Your task to perform on an android device: turn on bluetooth scan Image 0: 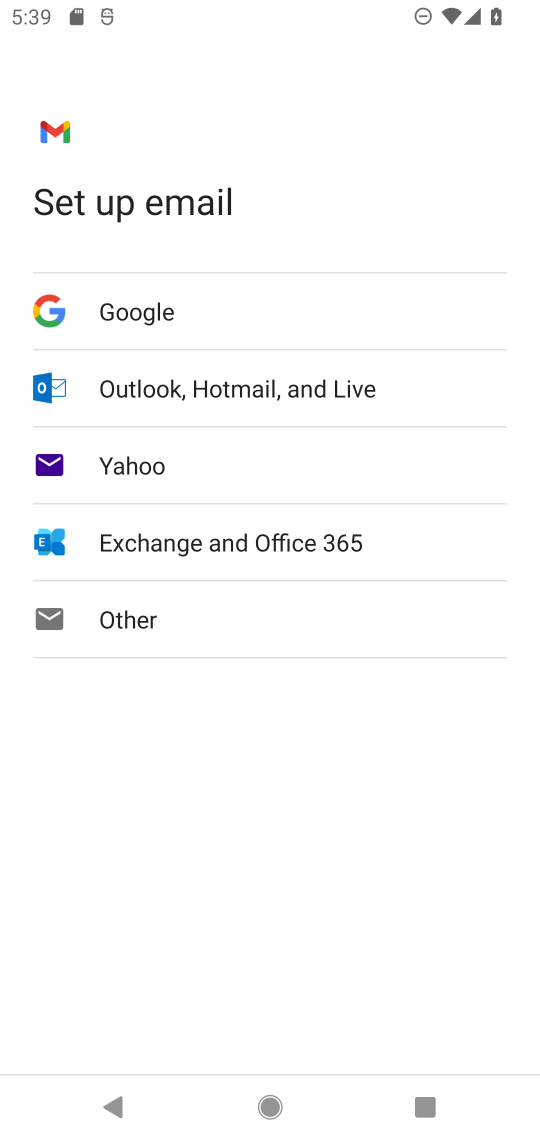
Step 0: press home button
Your task to perform on an android device: turn on bluetooth scan Image 1: 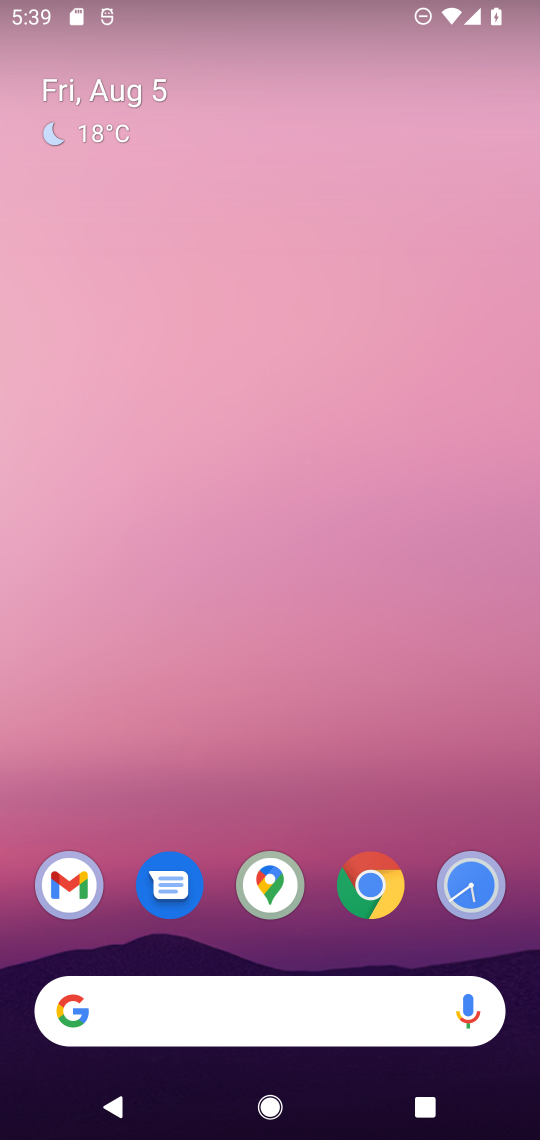
Step 1: drag from (333, 950) to (337, 100)
Your task to perform on an android device: turn on bluetooth scan Image 2: 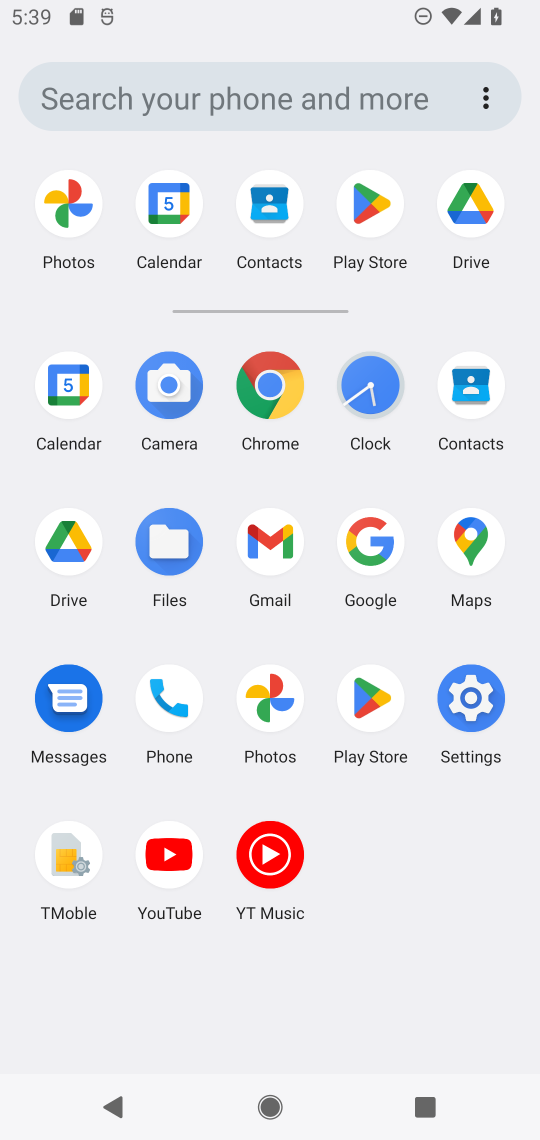
Step 2: click (461, 699)
Your task to perform on an android device: turn on bluetooth scan Image 3: 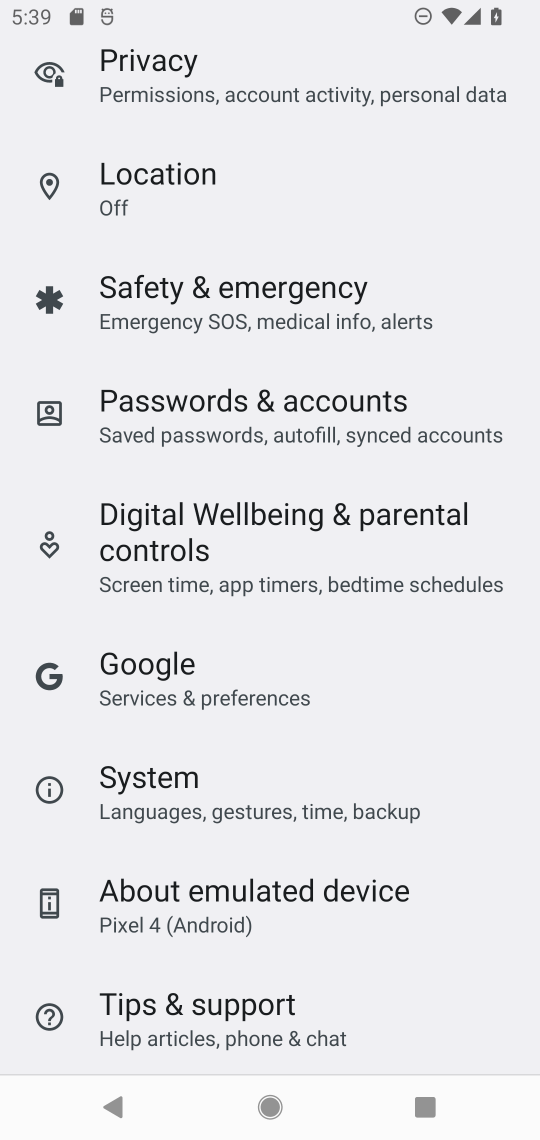
Step 3: drag from (233, 289) to (281, 796)
Your task to perform on an android device: turn on bluetooth scan Image 4: 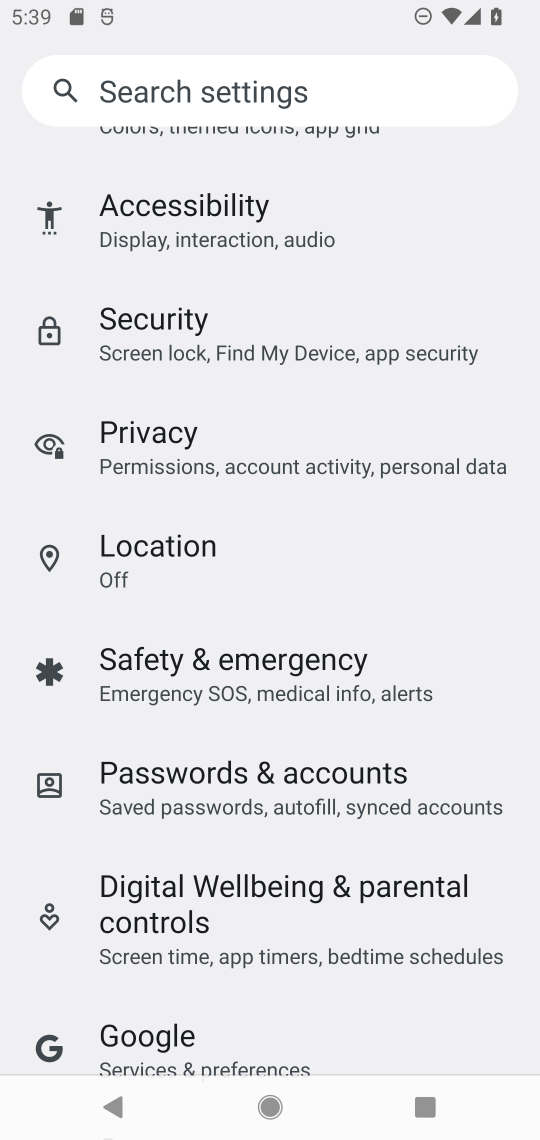
Step 4: drag from (235, 273) to (307, 758)
Your task to perform on an android device: turn on bluetooth scan Image 5: 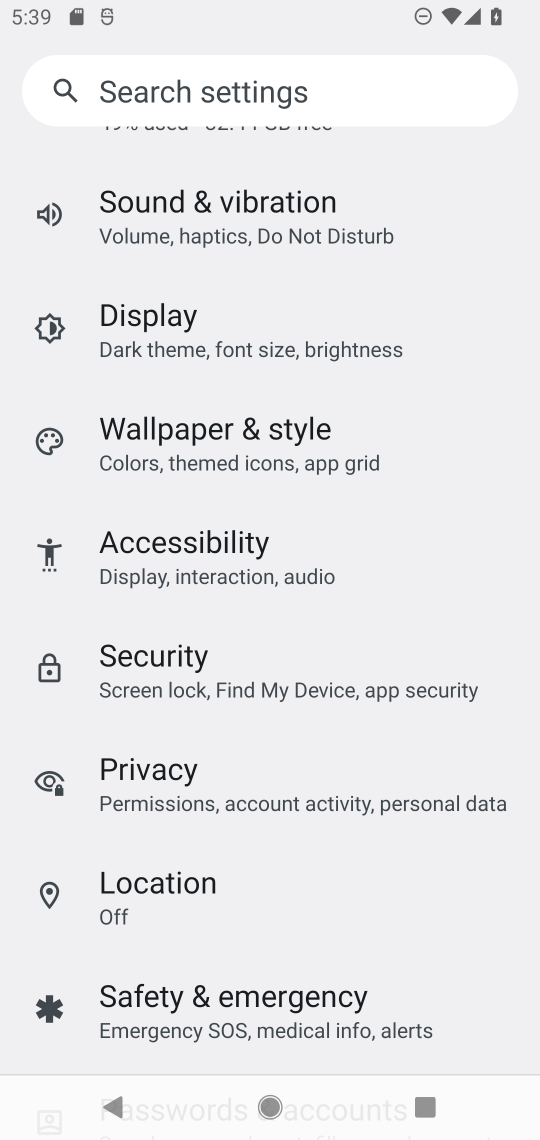
Step 5: drag from (202, 221) to (244, 806)
Your task to perform on an android device: turn on bluetooth scan Image 6: 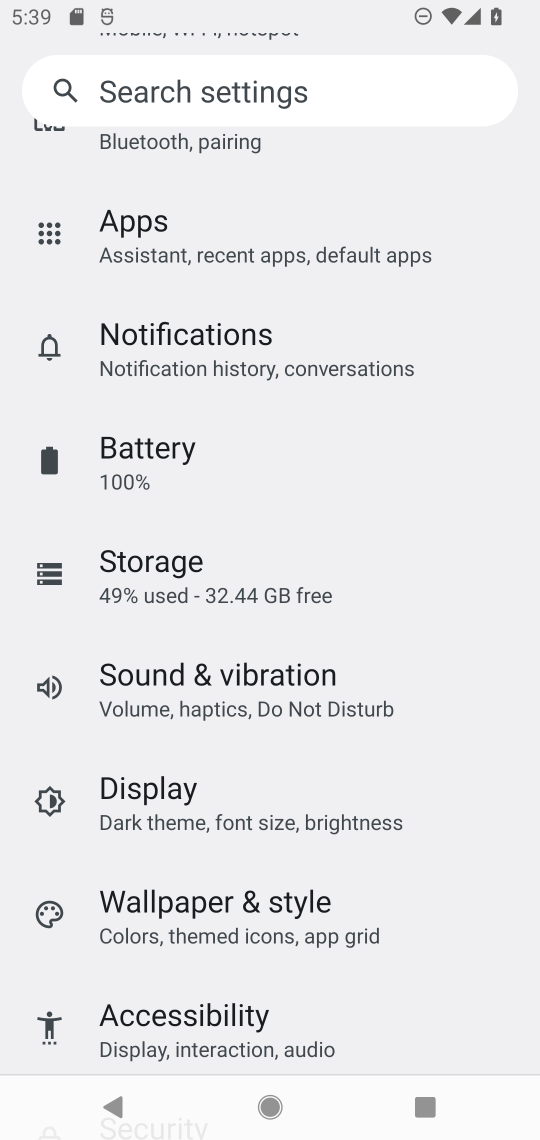
Step 6: drag from (185, 234) to (200, 927)
Your task to perform on an android device: turn on bluetooth scan Image 7: 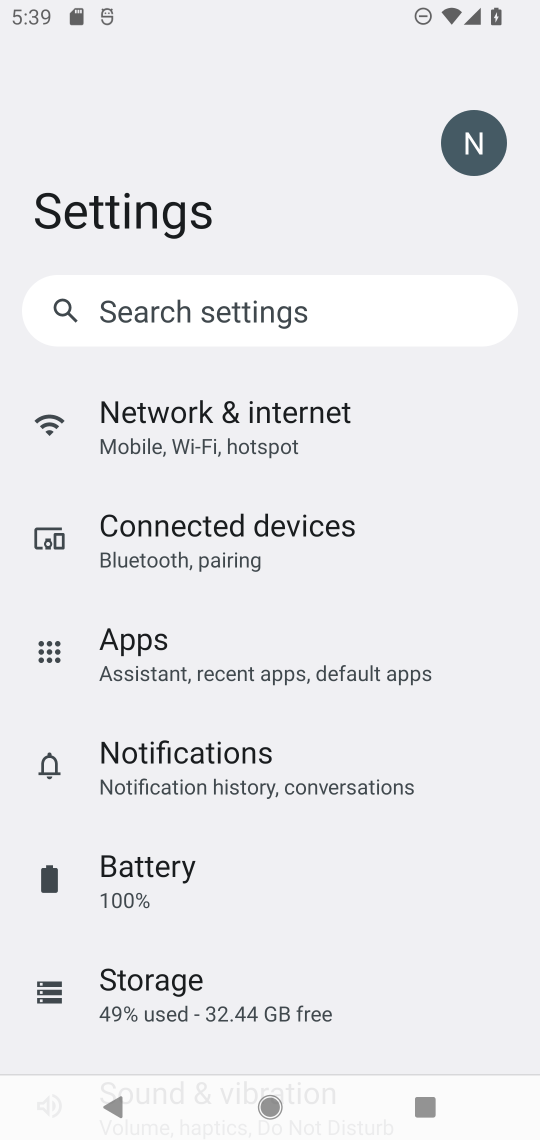
Step 7: drag from (169, 991) to (176, 457)
Your task to perform on an android device: turn on bluetooth scan Image 8: 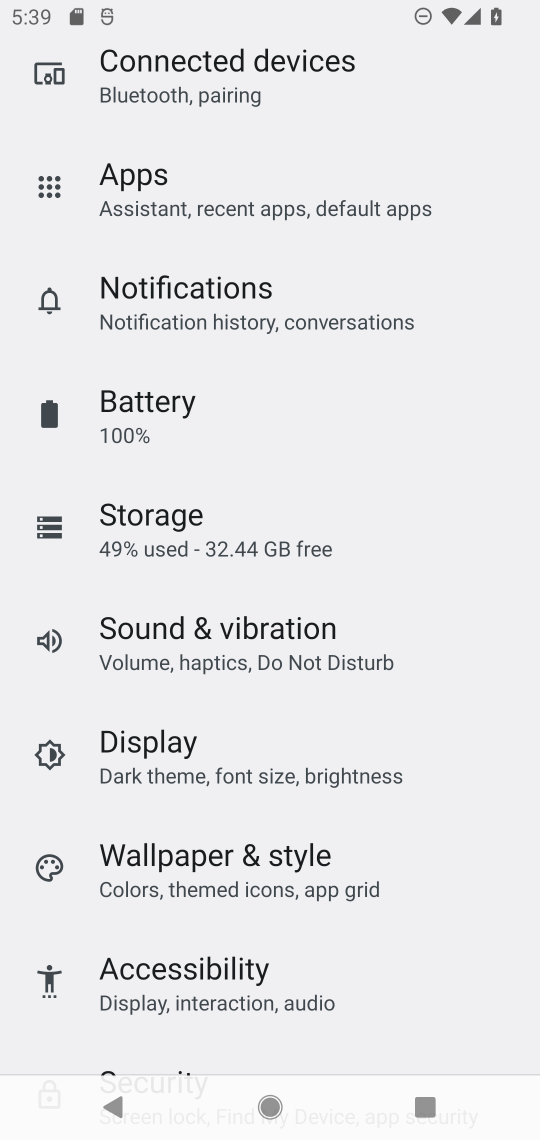
Step 8: drag from (196, 1033) to (188, 523)
Your task to perform on an android device: turn on bluetooth scan Image 9: 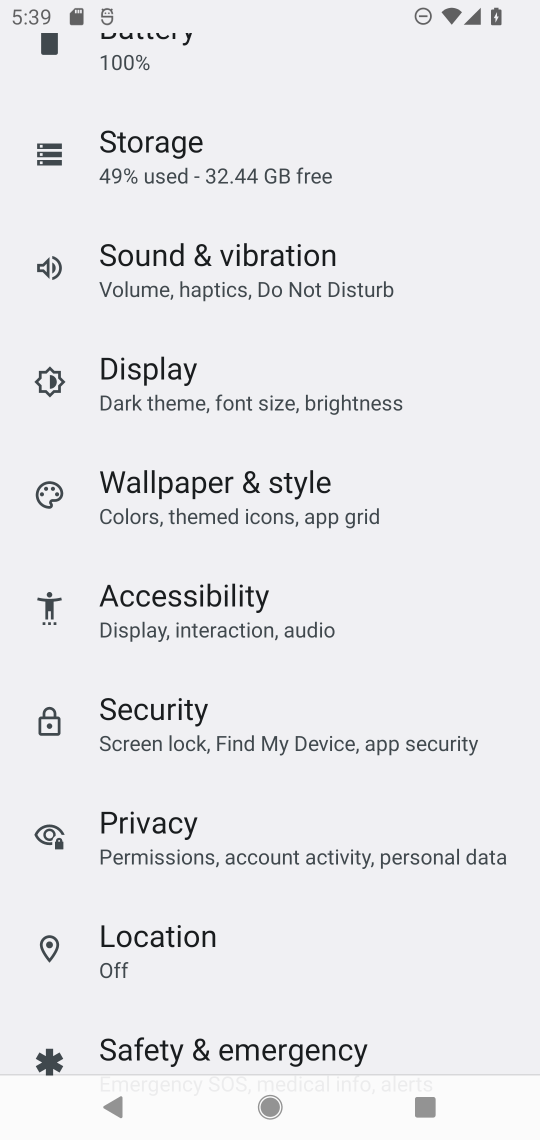
Step 9: click (152, 947)
Your task to perform on an android device: turn on bluetooth scan Image 10: 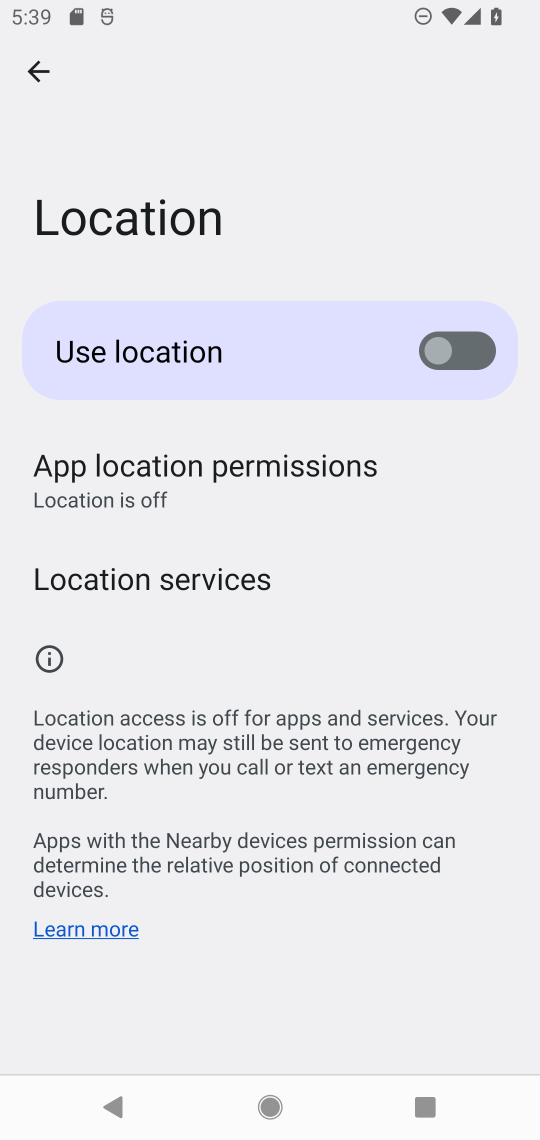
Step 10: click (169, 575)
Your task to perform on an android device: turn on bluetooth scan Image 11: 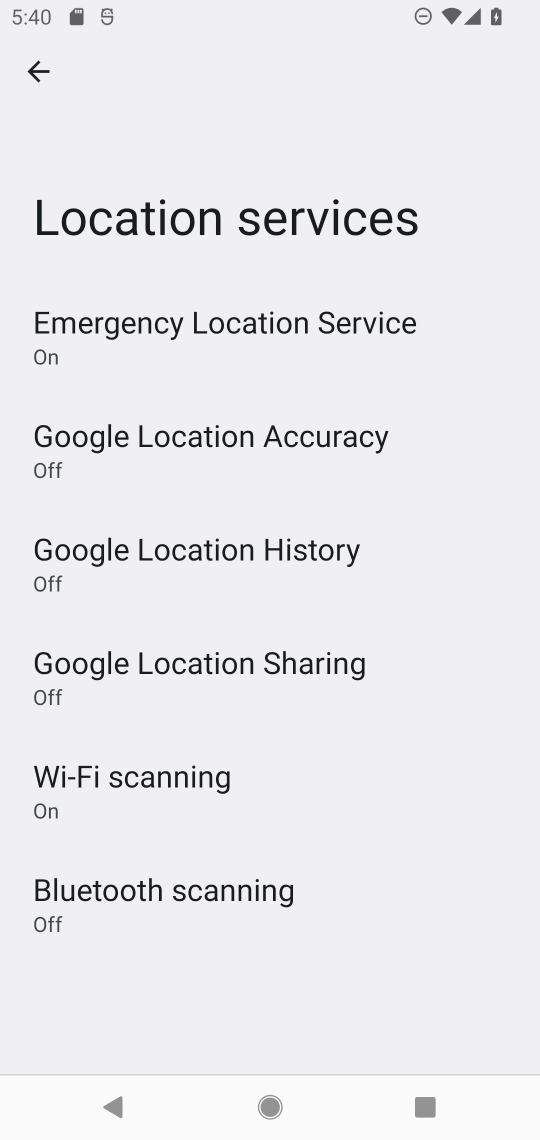
Step 11: click (193, 900)
Your task to perform on an android device: turn on bluetooth scan Image 12: 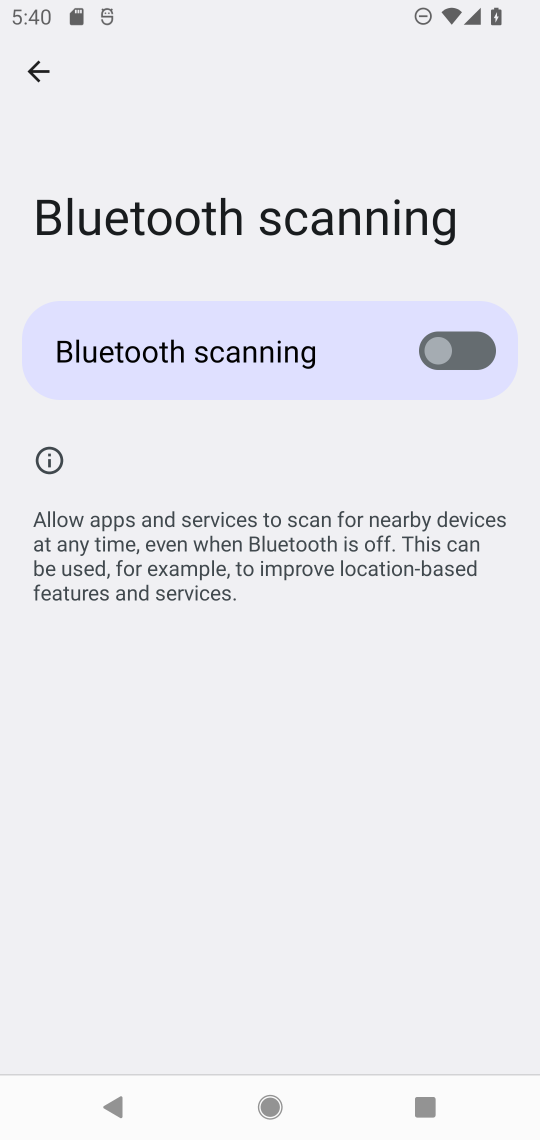
Step 12: click (480, 364)
Your task to perform on an android device: turn on bluetooth scan Image 13: 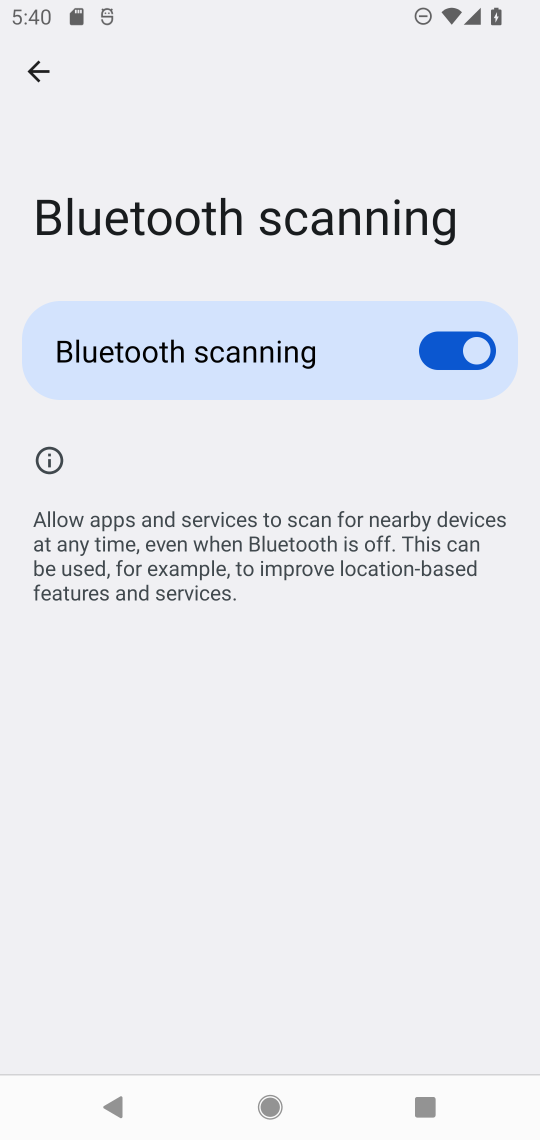
Step 13: task complete